Your task to perform on an android device: Open Google Maps and go to "Timeline" Image 0: 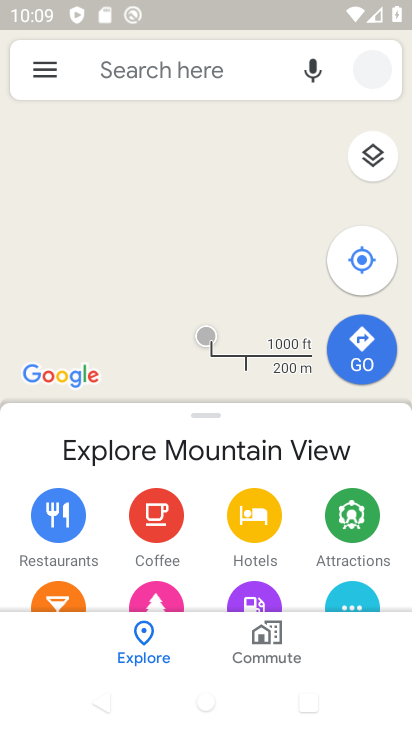
Step 0: click (48, 73)
Your task to perform on an android device: Open Google Maps and go to "Timeline" Image 1: 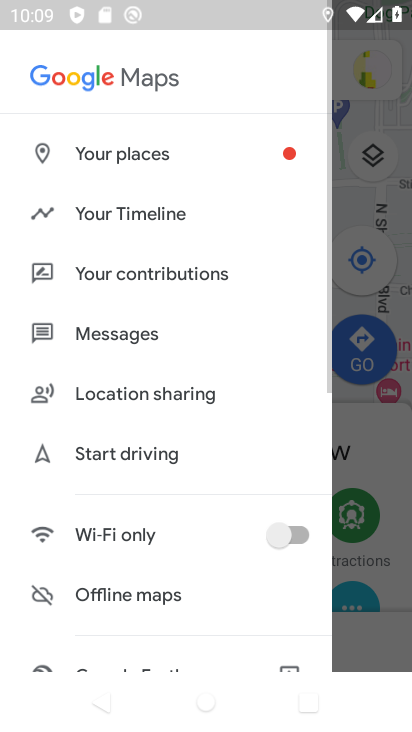
Step 1: click (136, 216)
Your task to perform on an android device: Open Google Maps and go to "Timeline" Image 2: 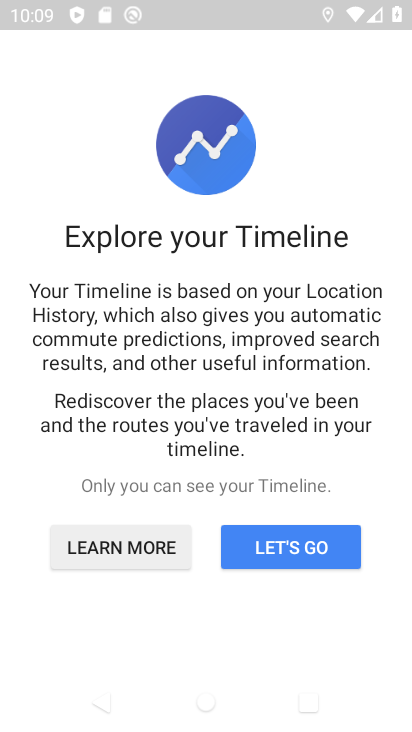
Step 2: click (308, 556)
Your task to perform on an android device: Open Google Maps and go to "Timeline" Image 3: 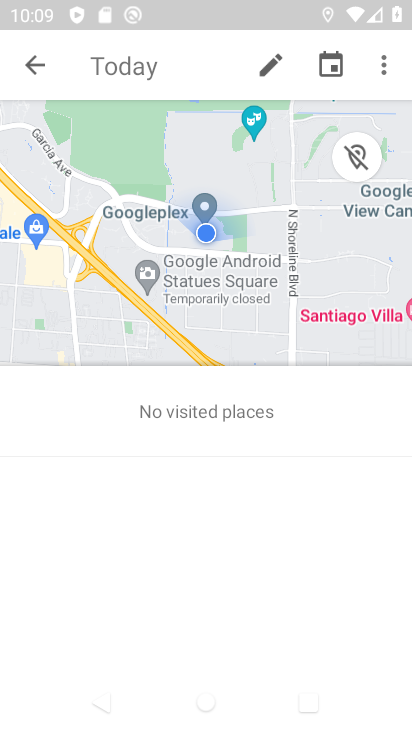
Step 3: task complete